Your task to perform on an android device: Open Google Chrome and open the bookmarks view Image 0: 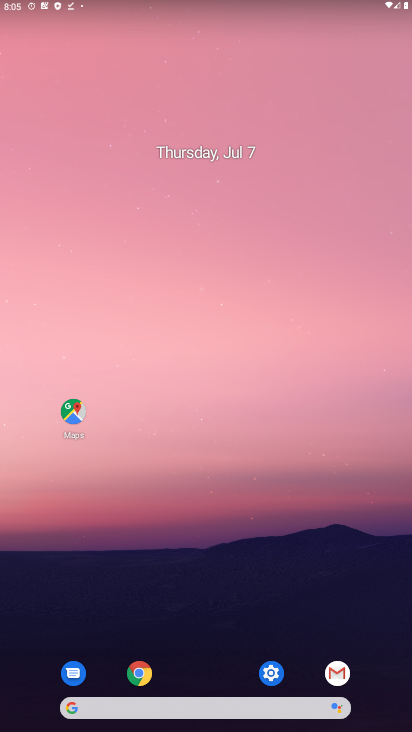
Step 0: click (148, 675)
Your task to perform on an android device: Open Google Chrome and open the bookmarks view Image 1: 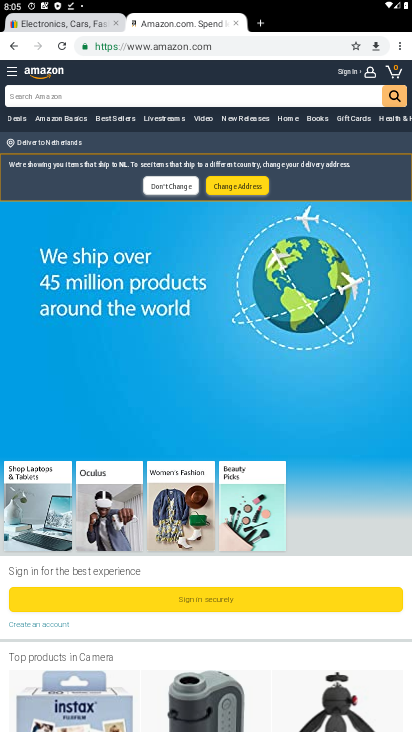
Step 1: click (398, 46)
Your task to perform on an android device: Open Google Chrome and open the bookmarks view Image 2: 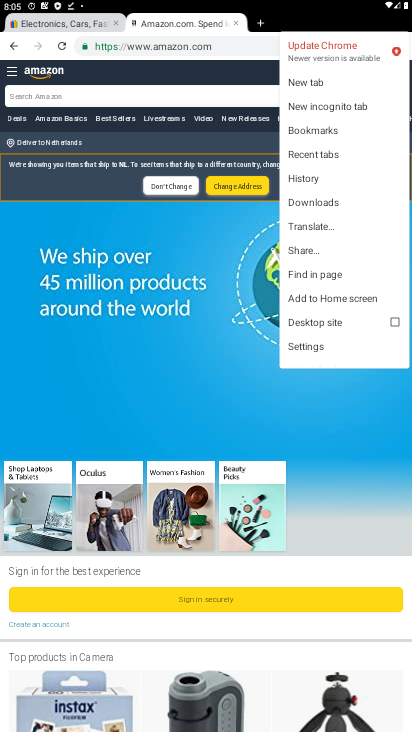
Step 2: click (321, 135)
Your task to perform on an android device: Open Google Chrome and open the bookmarks view Image 3: 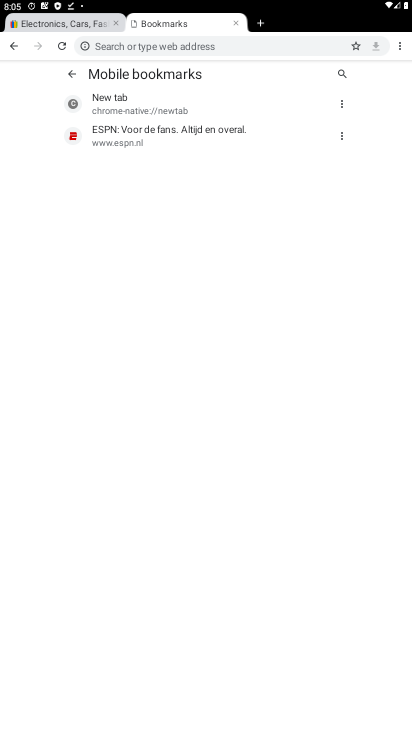
Step 3: task complete